Your task to perform on an android device: change the clock style Image 0: 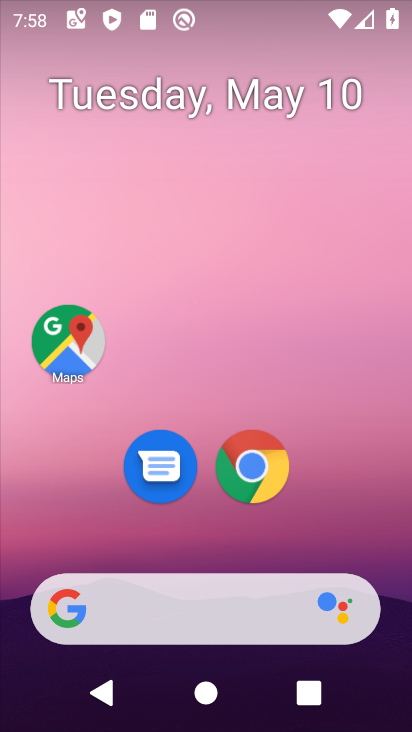
Step 0: drag from (308, 559) to (259, 92)
Your task to perform on an android device: change the clock style Image 1: 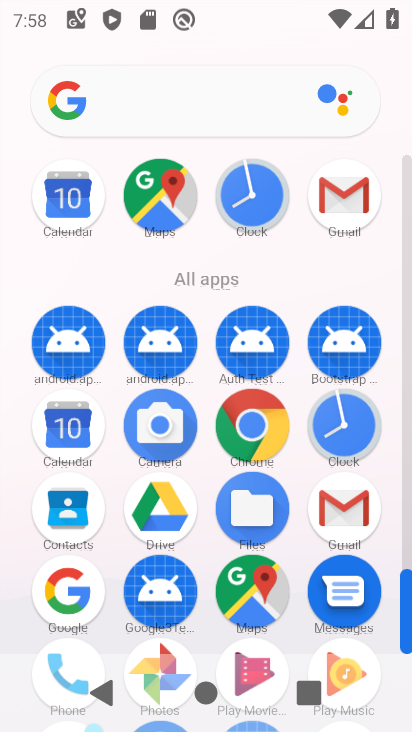
Step 1: drag from (205, 556) to (145, 312)
Your task to perform on an android device: change the clock style Image 2: 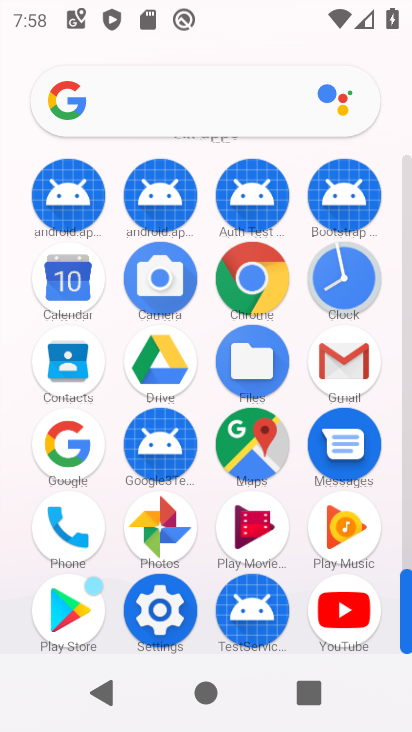
Step 2: click (342, 285)
Your task to perform on an android device: change the clock style Image 3: 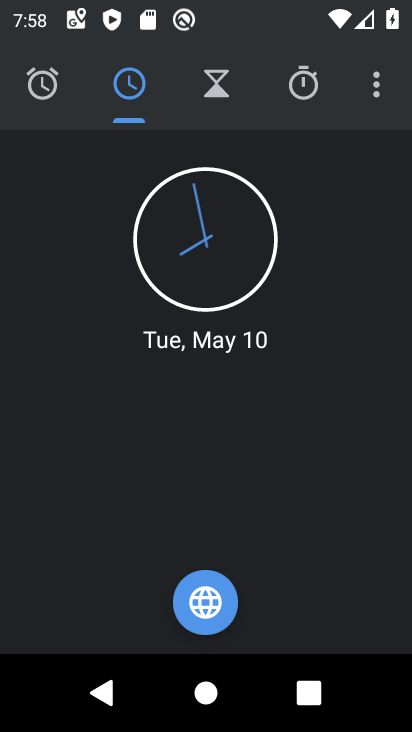
Step 3: click (389, 83)
Your task to perform on an android device: change the clock style Image 4: 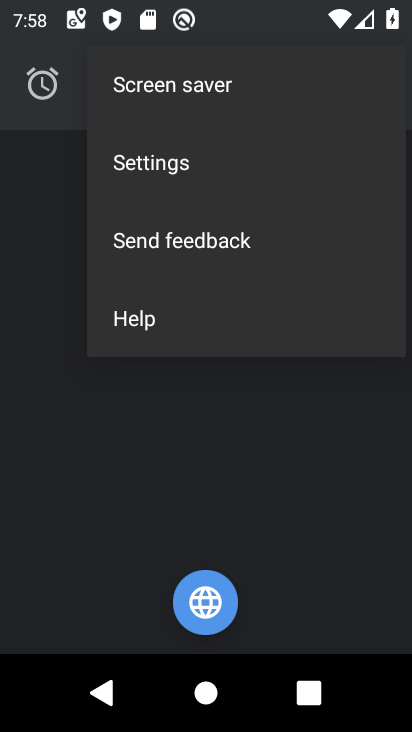
Step 4: click (149, 163)
Your task to perform on an android device: change the clock style Image 5: 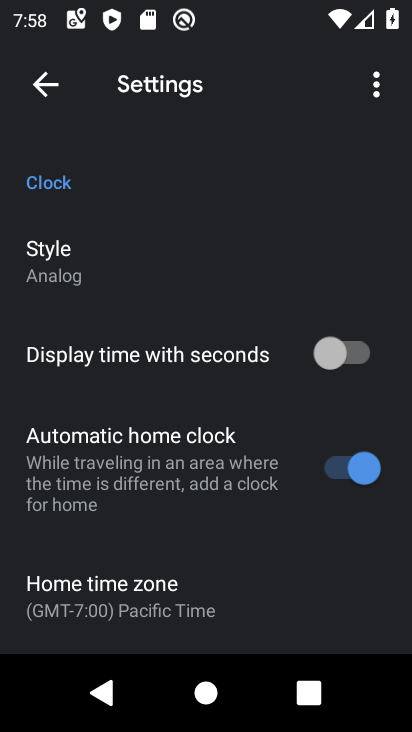
Step 5: click (70, 249)
Your task to perform on an android device: change the clock style Image 6: 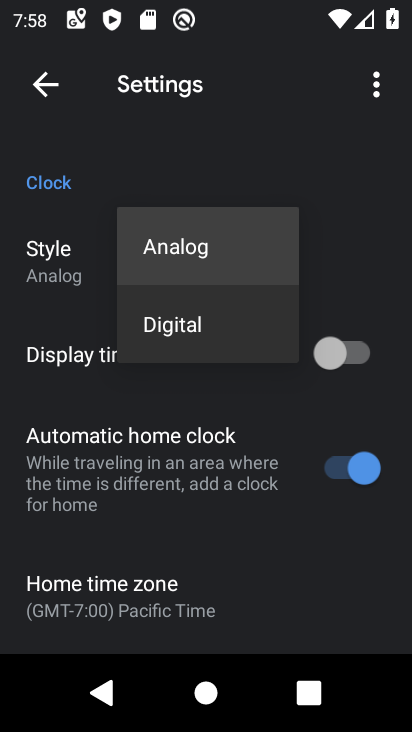
Step 6: click (255, 310)
Your task to perform on an android device: change the clock style Image 7: 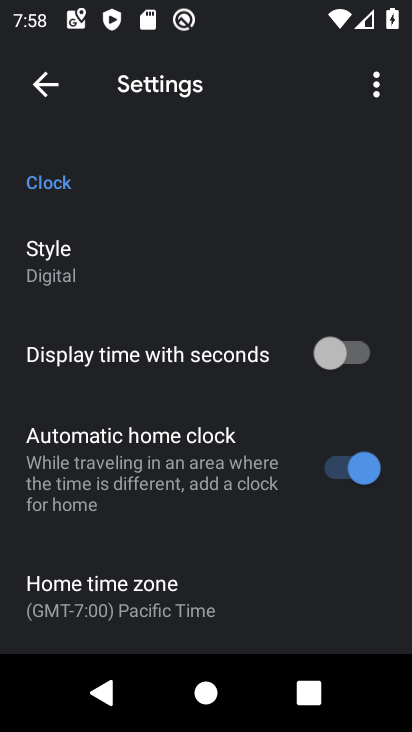
Step 7: task complete